Your task to perform on an android device: snooze an email in the gmail app Image 0: 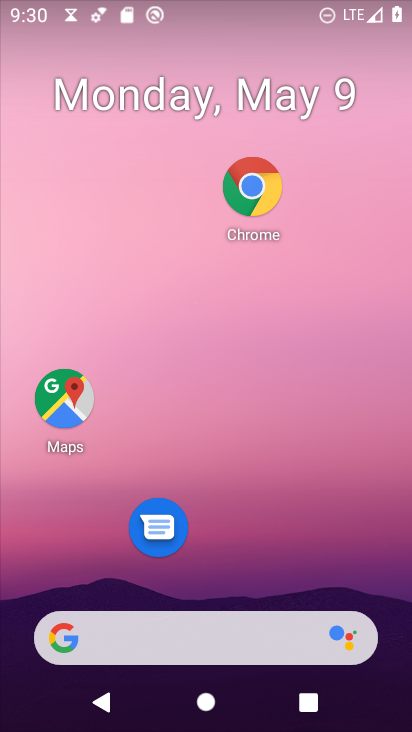
Step 0: drag from (204, 151) to (204, 76)
Your task to perform on an android device: snooze an email in the gmail app Image 1: 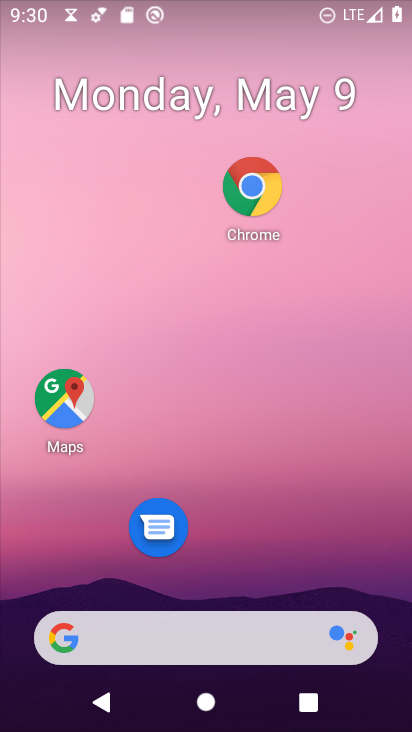
Step 1: drag from (219, 539) to (270, 163)
Your task to perform on an android device: snooze an email in the gmail app Image 2: 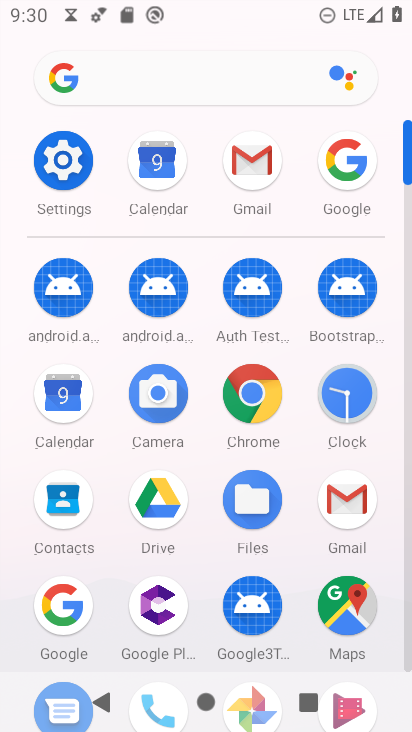
Step 2: drag from (210, 578) to (209, 114)
Your task to perform on an android device: snooze an email in the gmail app Image 3: 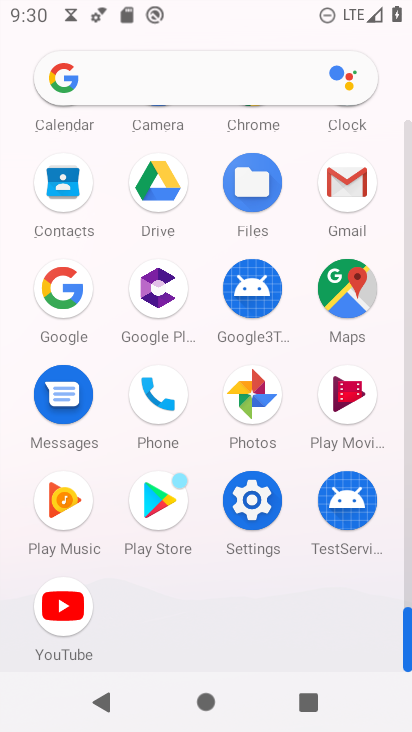
Step 3: click (342, 175)
Your task to perform on an android device: snooze an email in the gmail app Image 4: 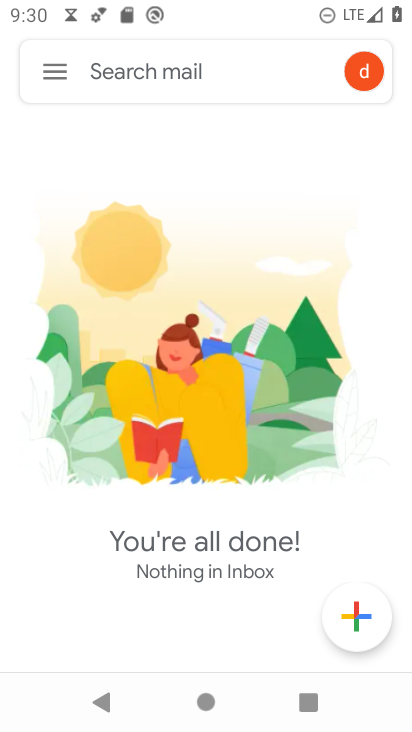
Step 4: task complete